Your task to perform on an android device: Open Google Chrome and open the bookmarks view Image 0: 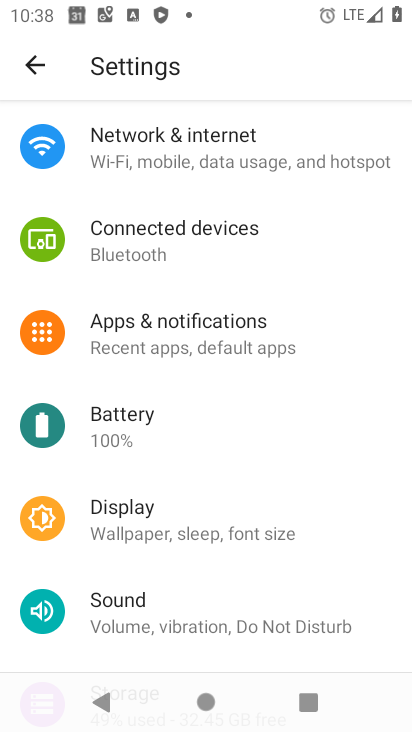
Step 0: press home button
Your task to perform on an android device: Open Google Chrome and open the bookmarks view Image 1: 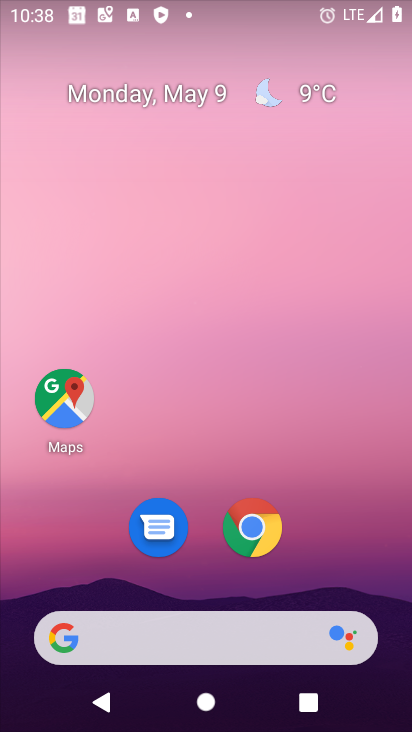
Step 1: click (250, 530)
Your task to perform on an android device: Open Google Chrome and open the bookmarks view Image 2: 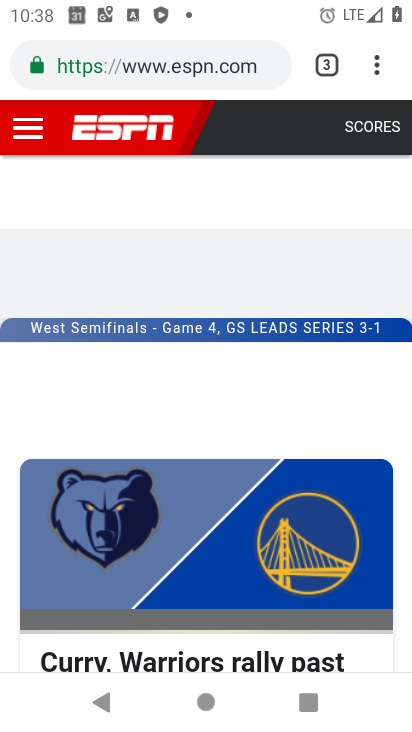
Step 2: click (375, 71)
Your task to perform on an android device: Open Google Chrome and open the bookmarks view Image 3: 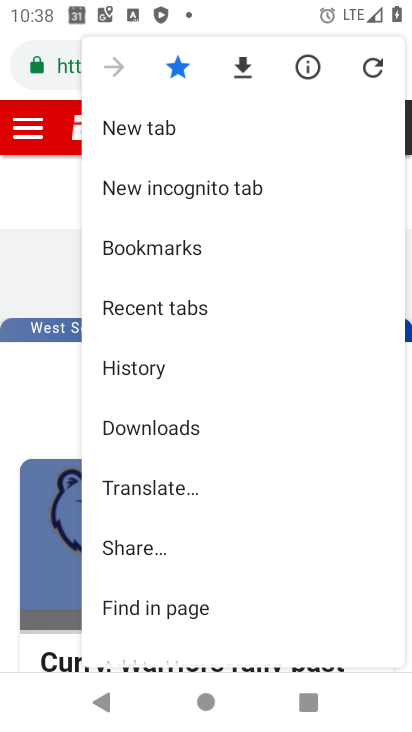
Step 3: click (147, 245)
Your task to perform on an android device: Open Google Chrome and open the bookmarks view Image 4: 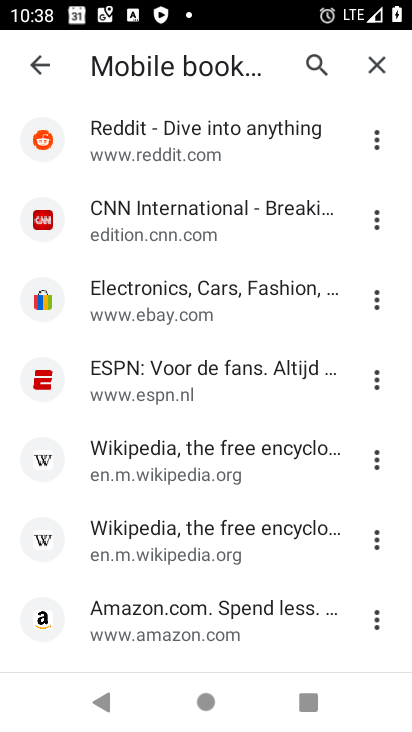
Step 4: task complete